Your task to perform on an android device: Open Wikipedia Image 0: 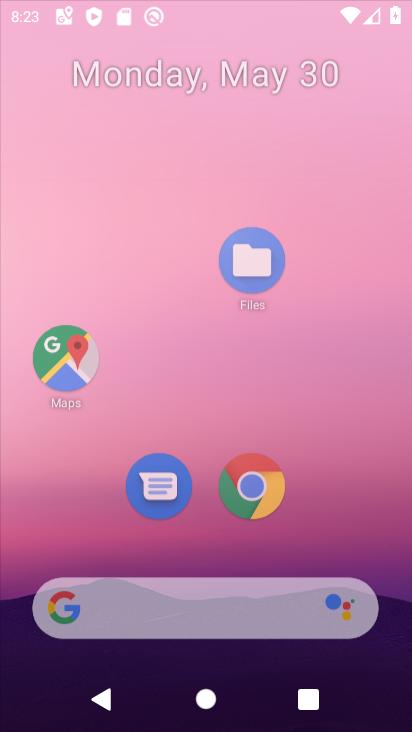
Step 0: click (198, 636)
Your task to perform on an android device: Open Wikipedia Image 1: 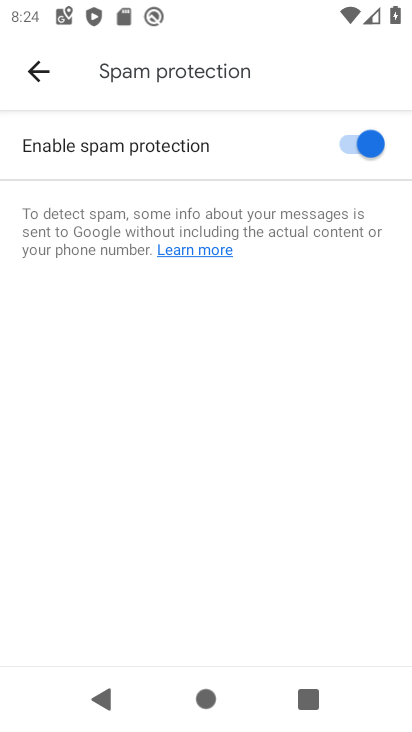
Step 1: click (40, 68)
Your task to perform on an android device: Open Wikipedia Image 2: 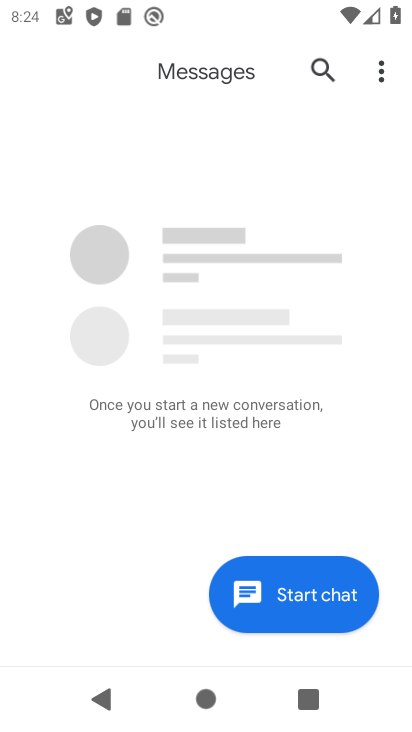
Step 2: press home button
Your task to perform on an android device: Open Wikipedia Image 3: 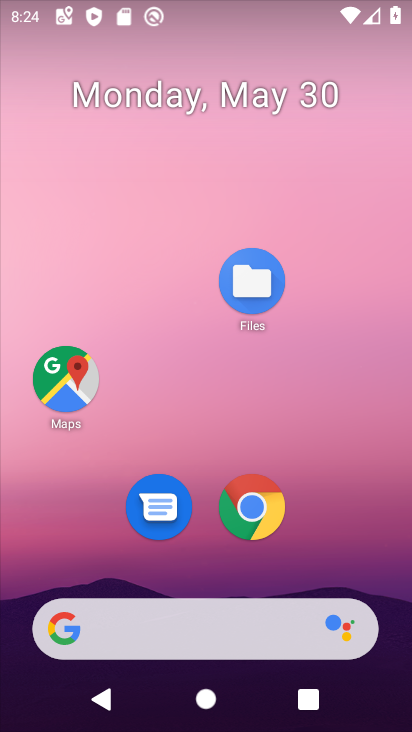
Step 3: click (216, 659)
Your task to perform on an android device: Open Wikipedia Image 4: 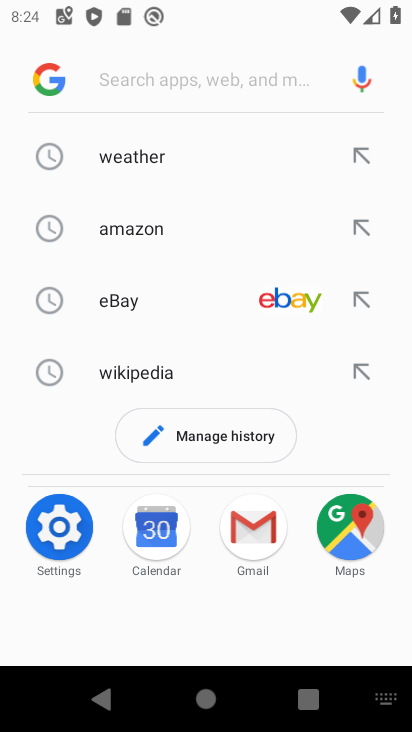
Step 4: press home button
Your task to perform on an android device: Open Wikipedia Image 5: 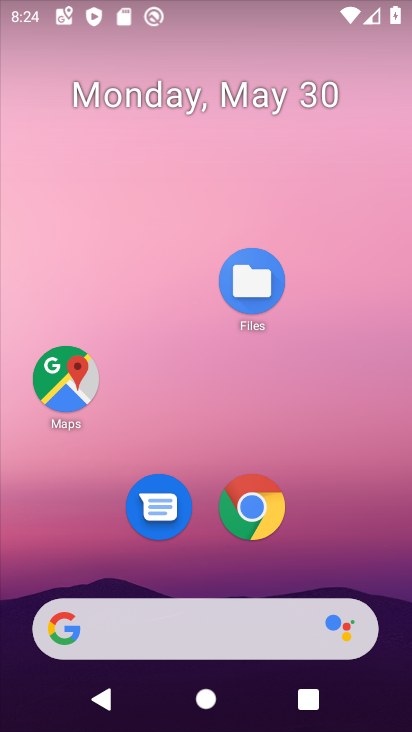
Step 5: click (245, 509)
Your task to perform on an android device: Open Wikipedia Image 6: 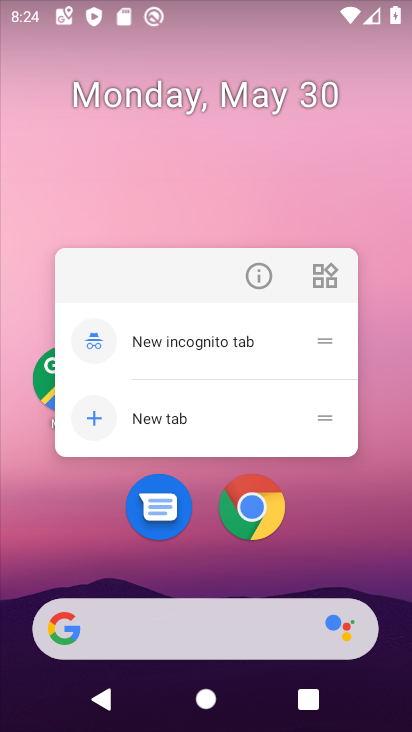
Step 6: click (242, 513)
Your task to perform on an android device: Open Wikipedia Image 7: 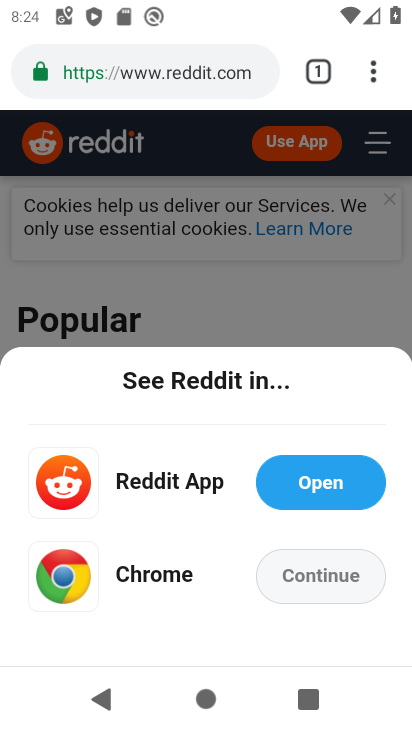
Step 7: click (142, 83)
Your task to perform on an android device: Open Wikipedia Image 8: 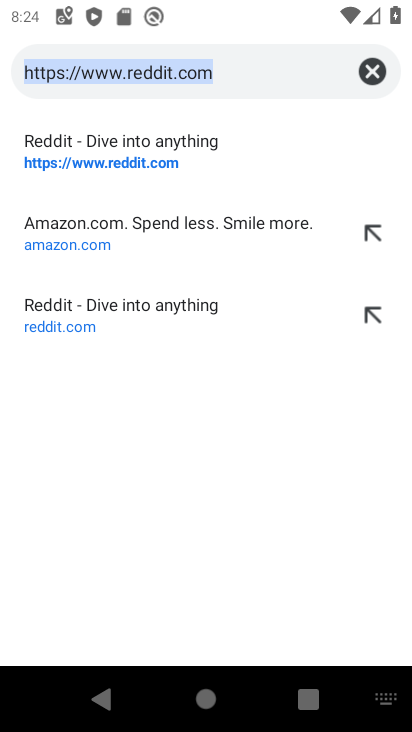
Step 8: type "wikipedia"
Your task to perform on an android device: Open Wikipedia Image 9: 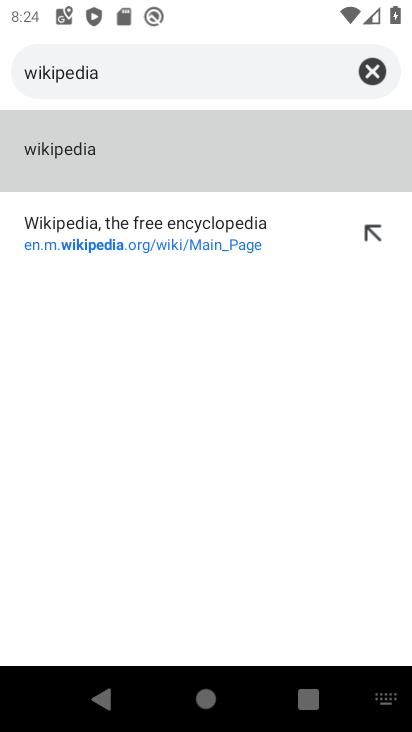
Step 9: click (79, 142)
Your task to perform on an android device: Open Wikipedia Image 10: 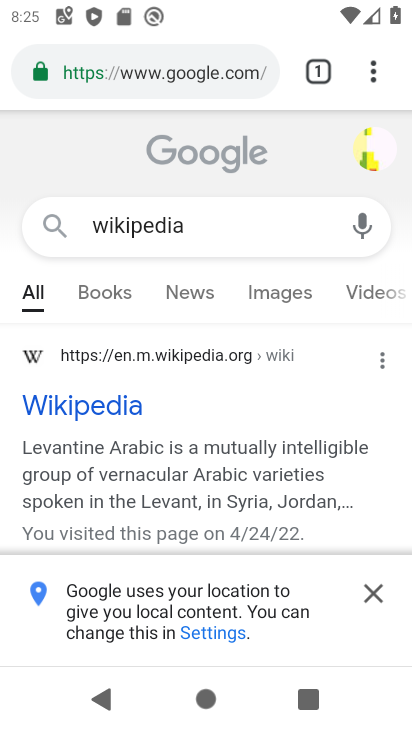
Step 10: task complete